Your task to perform on an android device: Go to Android settings Image 0: 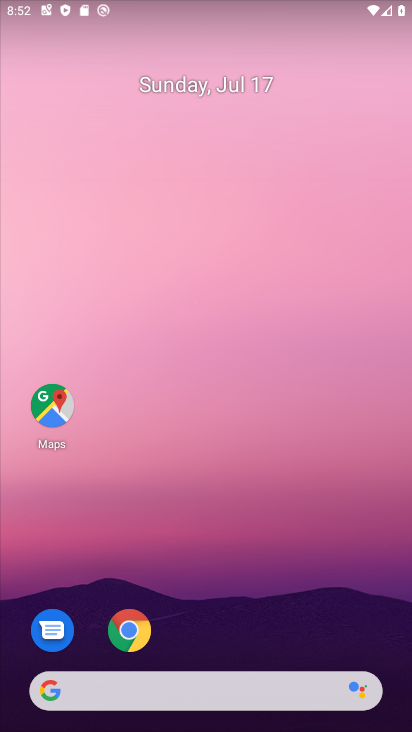
Step 0: drag from (215, 618) to (272, 3)
Your task to perform on an android device: Go to Android settings Image 1: 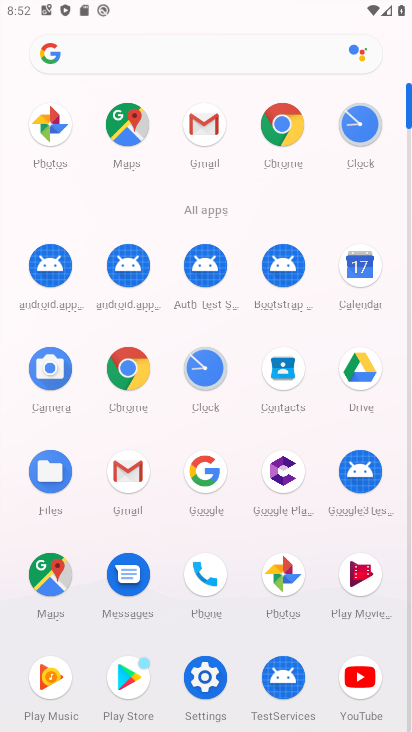
Step 1: click (205, 657)
Your task to perform on an android device: Go to Android settings Image 2: 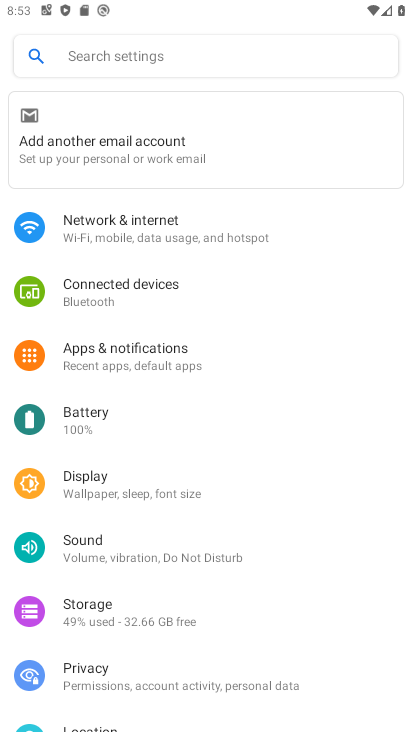
Step 2: drag from (303, 675) to (375, 17)
Your task to perform on an android device: Go to Android settings Image 3: 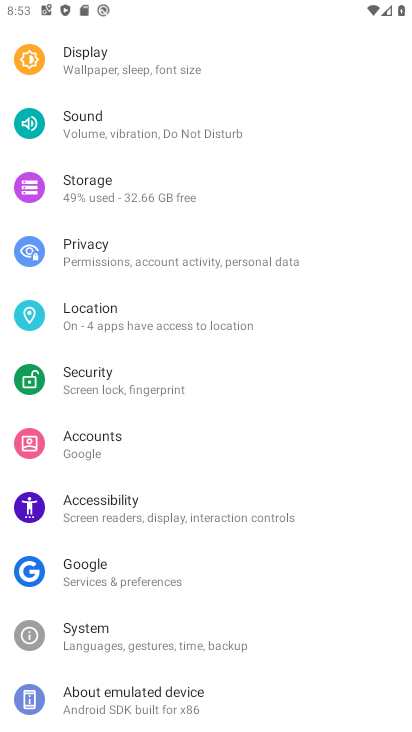
Step 3: click (248, 693)
Your task to perform on an android device: Go to Android settings Image 4: 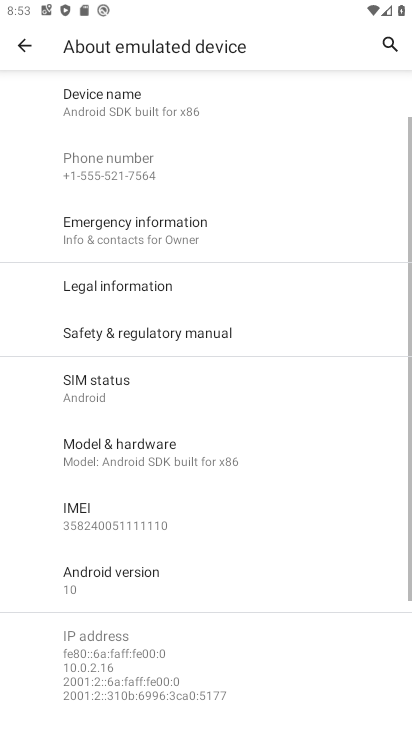
Step 4: task complete